Your task to perform on an android device: Check the weather Image 0: 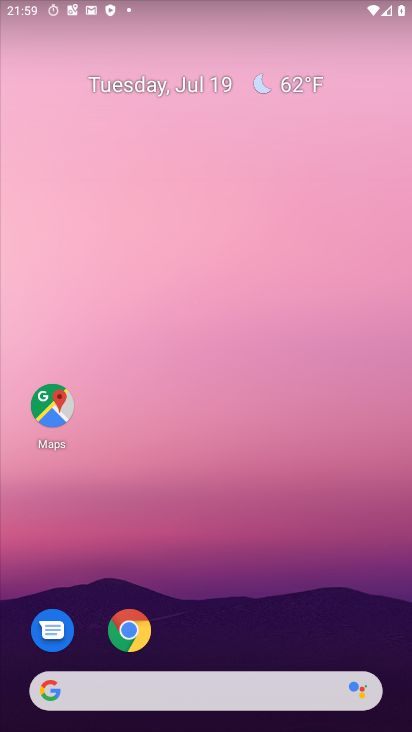
Step 0: click (125, 690)
Your task to perform on an android device: Check the weather Image 1: 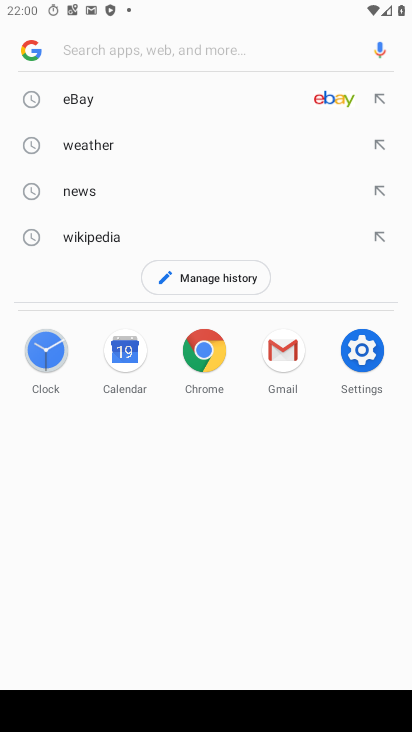
Step 1: click (94, 151)
Your task to perform on an android device: Check the weather Image 2: 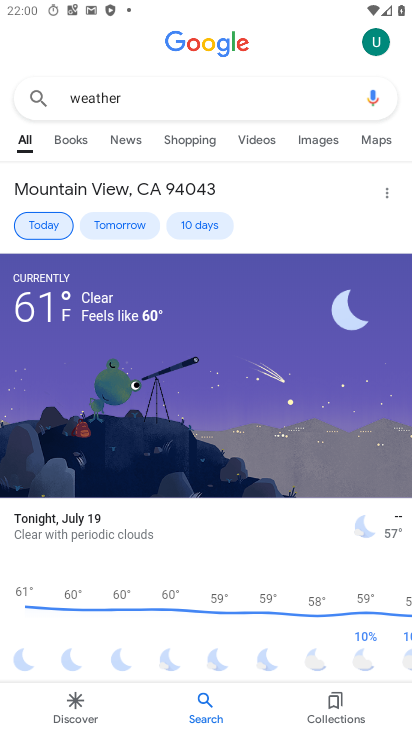
Step 2: task complete